Your task to perform on an android device: Show me recent news Image 0: 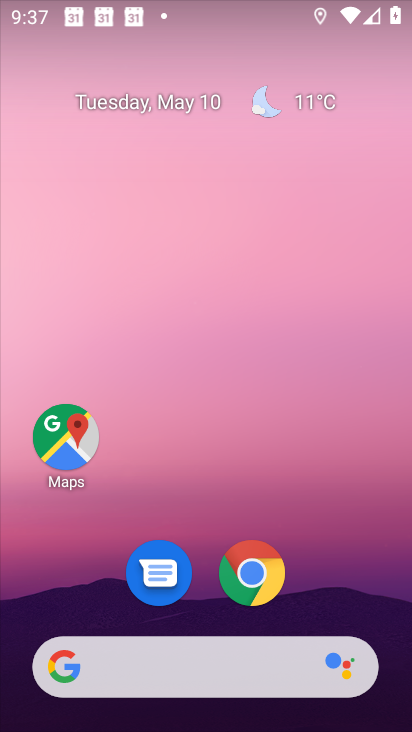
Step 0: drag from (324, 575) to (299, 99)
Your task to perform on an android device: Show me recent news Image 1: 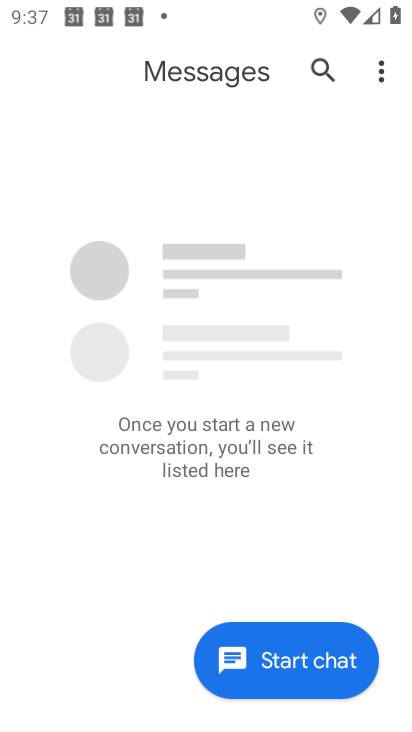
Step 1: press home button
Your task to perform on an android device: Show me recent news Image 2: 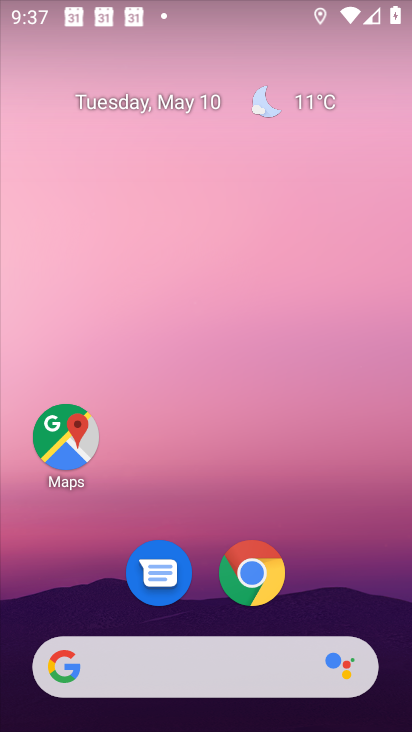
Step 2: click (260, 576)
Your task to perform on an android device: Show me recent news Image 3: 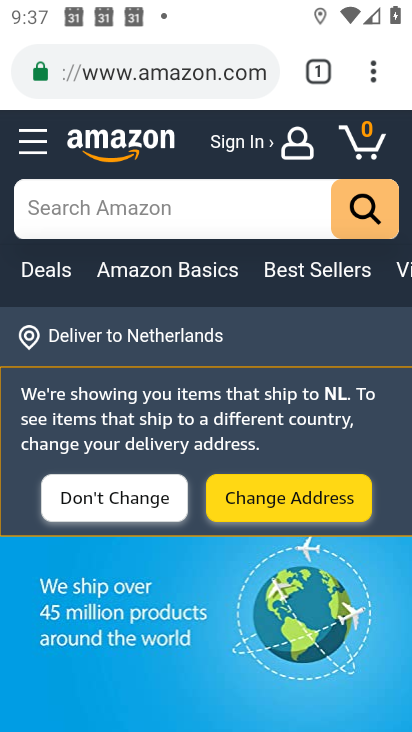
Step 3: click (171, 78)
Your task to perform on an android device: Show me recent news Image 4: 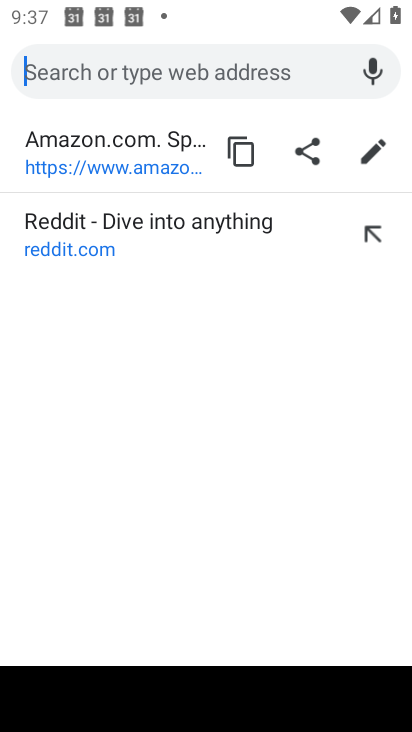
Step 4: type "recent news"
Your task to perform on an android device: Show me recent news Image 5: 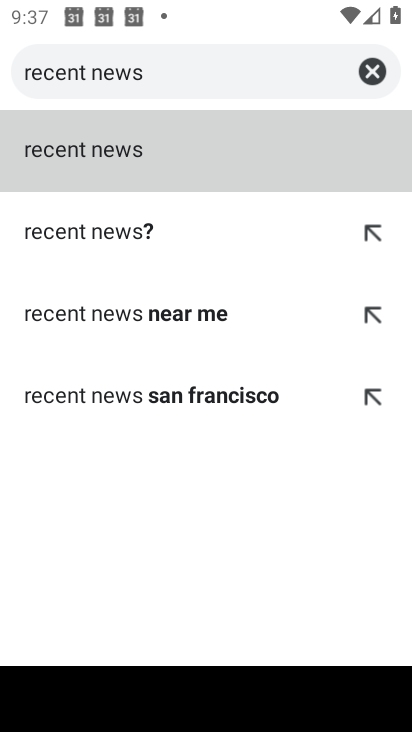
Step 5: click (151, 139)
Your task to perform on an android device: Show me recent news Image 6: 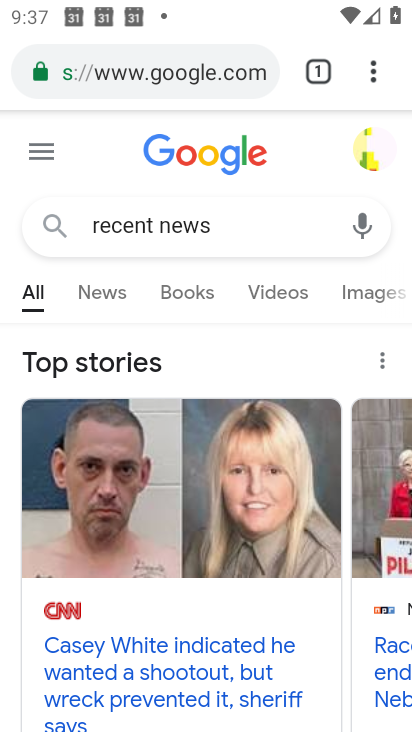
Step 6: task complete